Your task to perform on an android device: set the stopwatch Image 0: 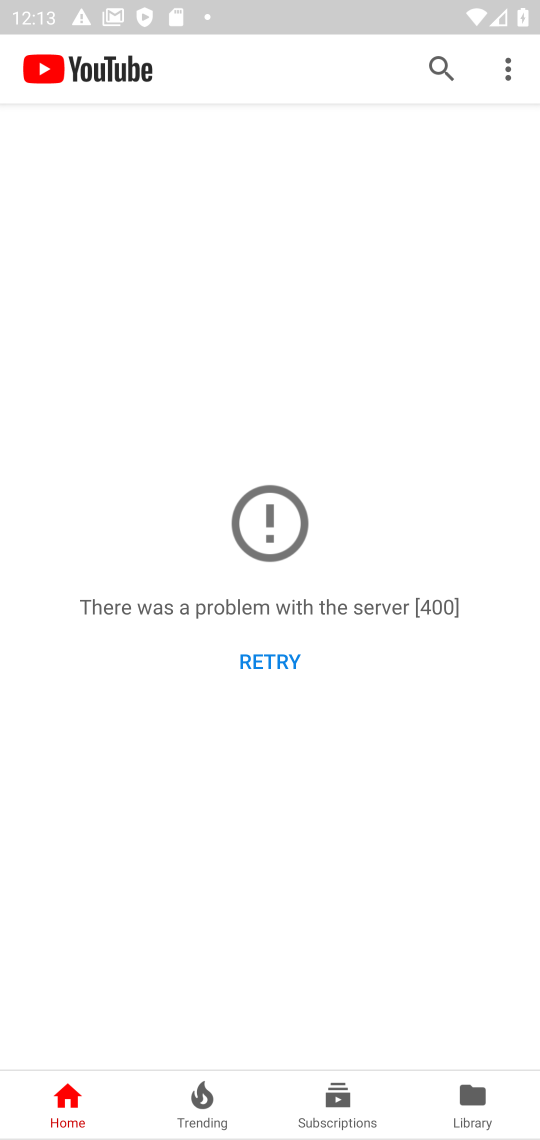
Step 0: press home button
Your task to perform on an android device: set the stopwatch Image 1: 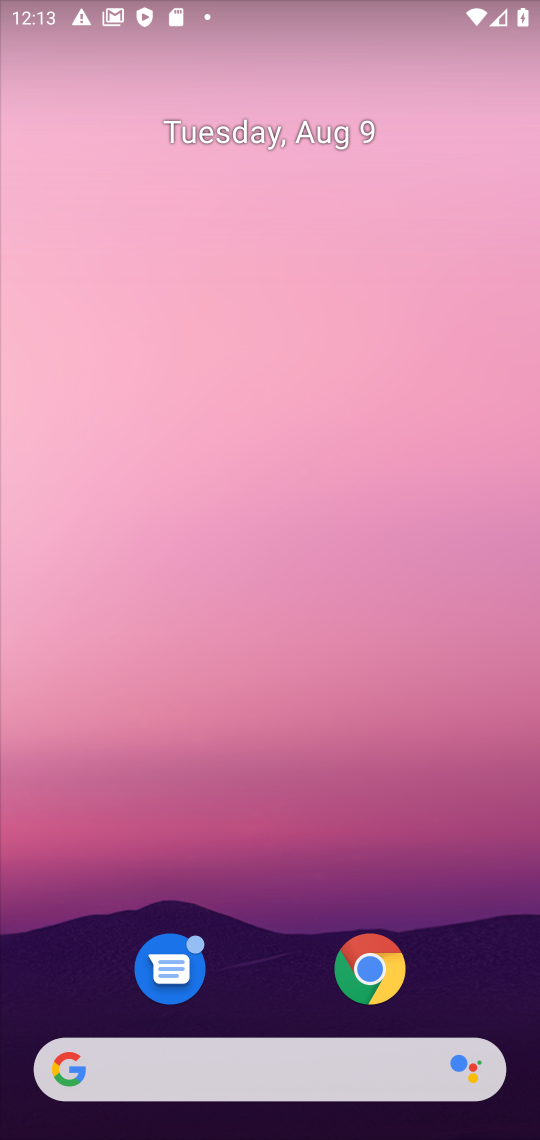
Step 1: drag from (206, 1079) to (147, 186)
Your task to perform on an android device: set the stopwatch Image 2: 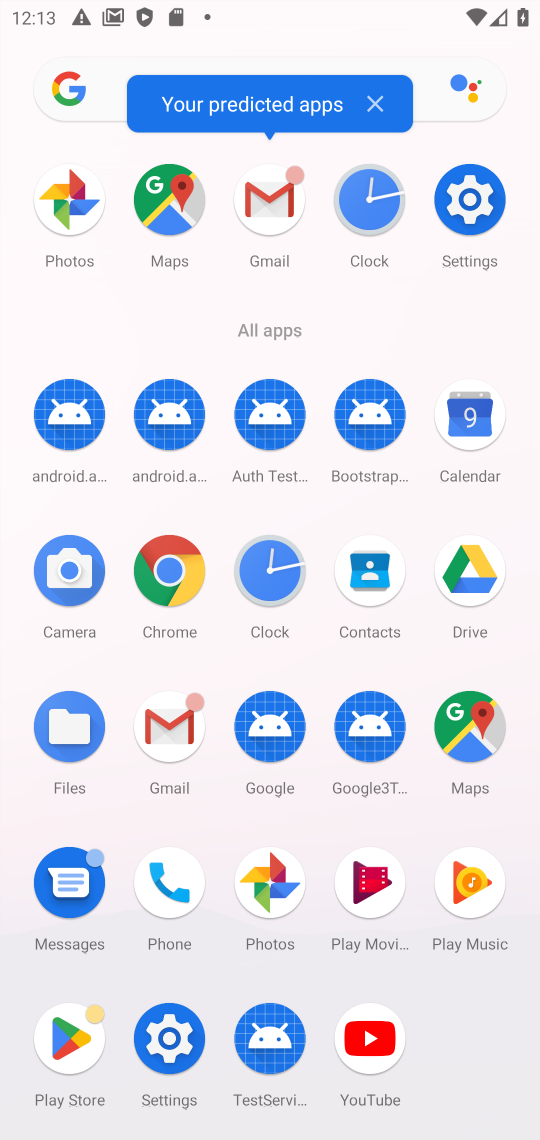
Step 2: click (279, 570)
Your task to perform on an android device: set the stopwatch Image 3: 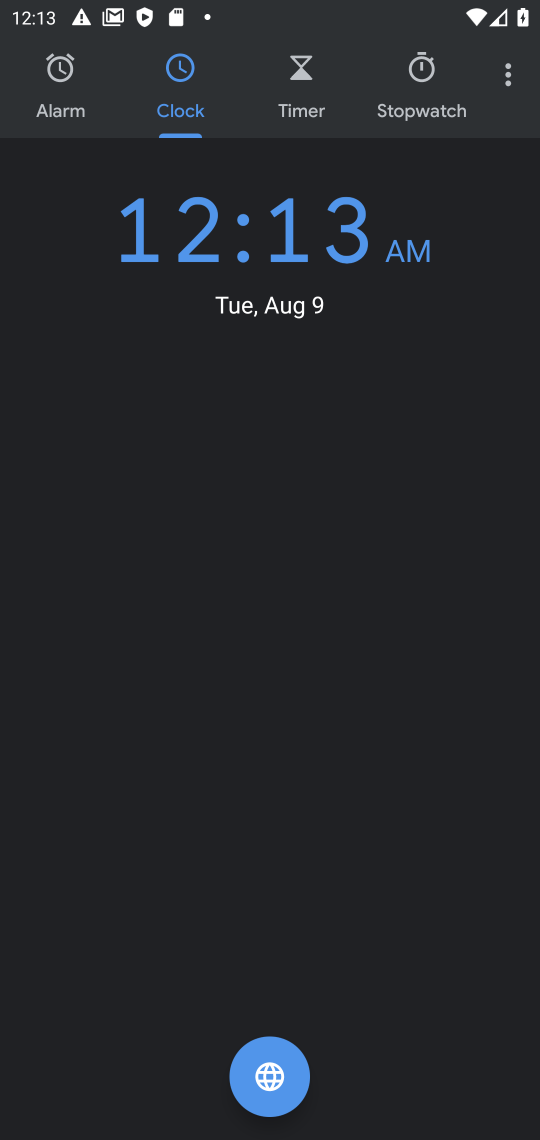
Step 3: click (408, 95)
Your task to perform on an android device: set the stopwatch Image 4: 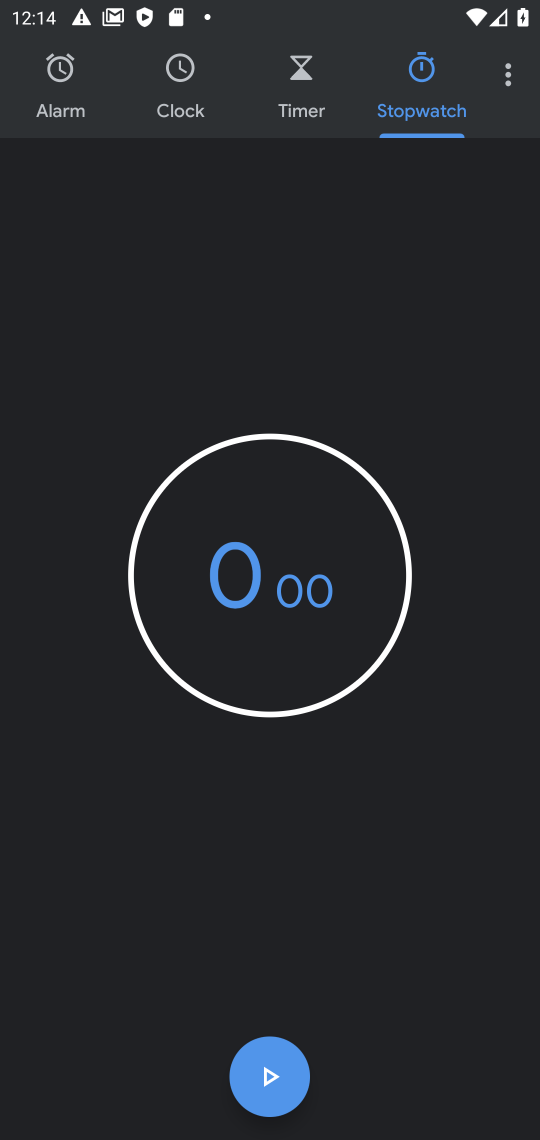
Step 4: click (244, 1102)
Your task to perform on an android device: set the stopwatch Image 5: 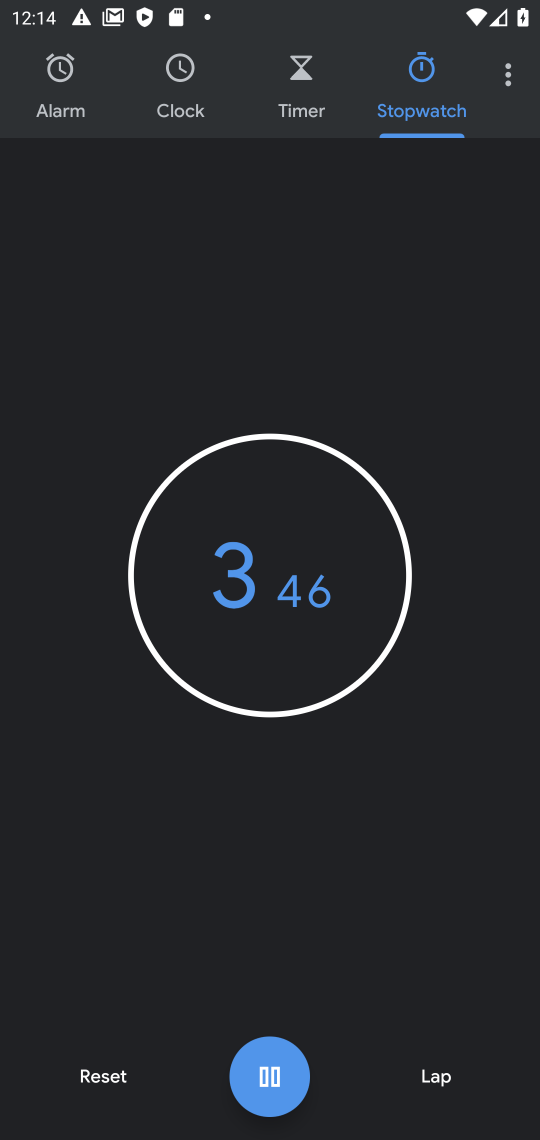
Step 5: task complete